Your task to perform on an android device: visit the assistant section in the google photos Image 0: 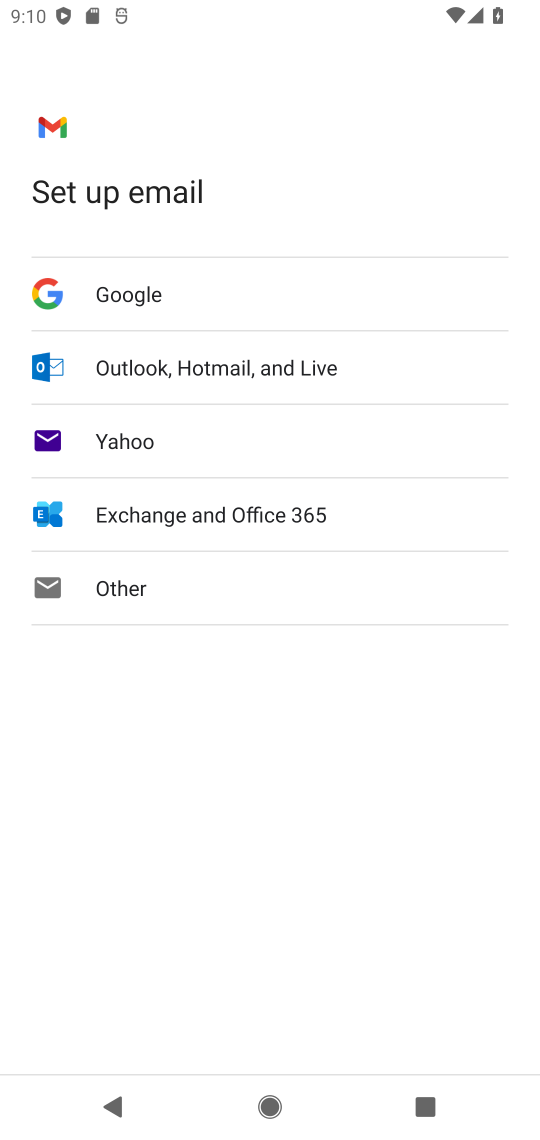
Step 0: press home button
Your task to perform on an android device: visit the assistant section in the google photos Image 1: 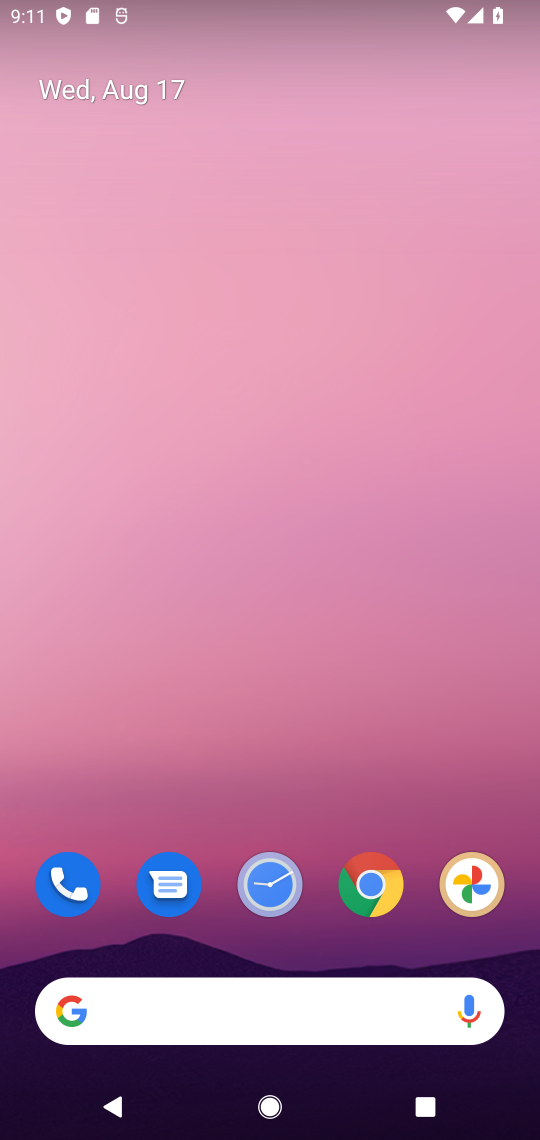
Step 1: click (478, 890)
Your task to perform on an android device: visit the assistant section in the google photos Image 2: 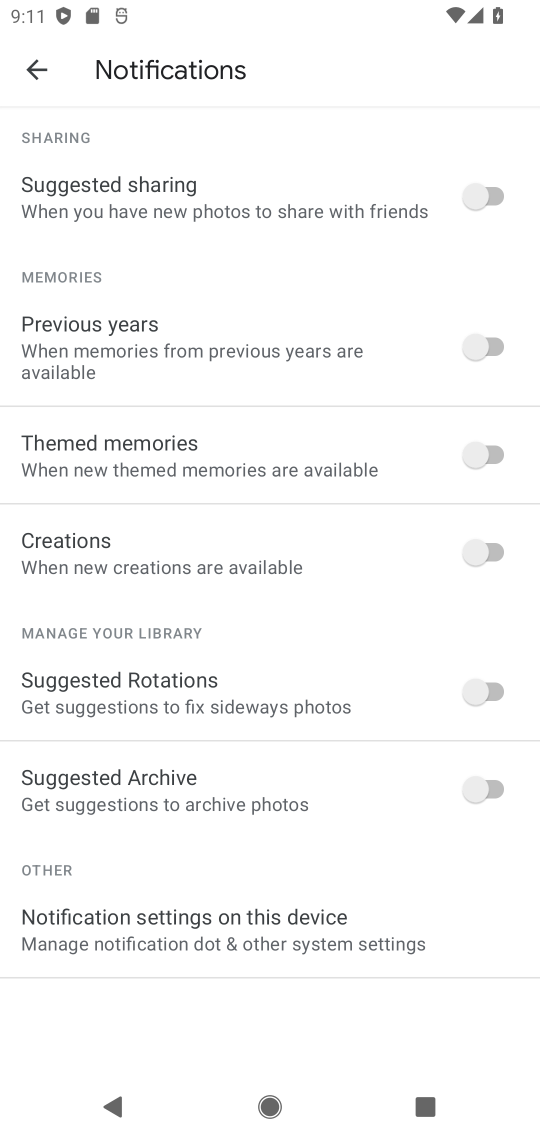
Step 2: click (31, 71)
Your task to perform on an android device: visit the assistant section in the google photos Image 3: 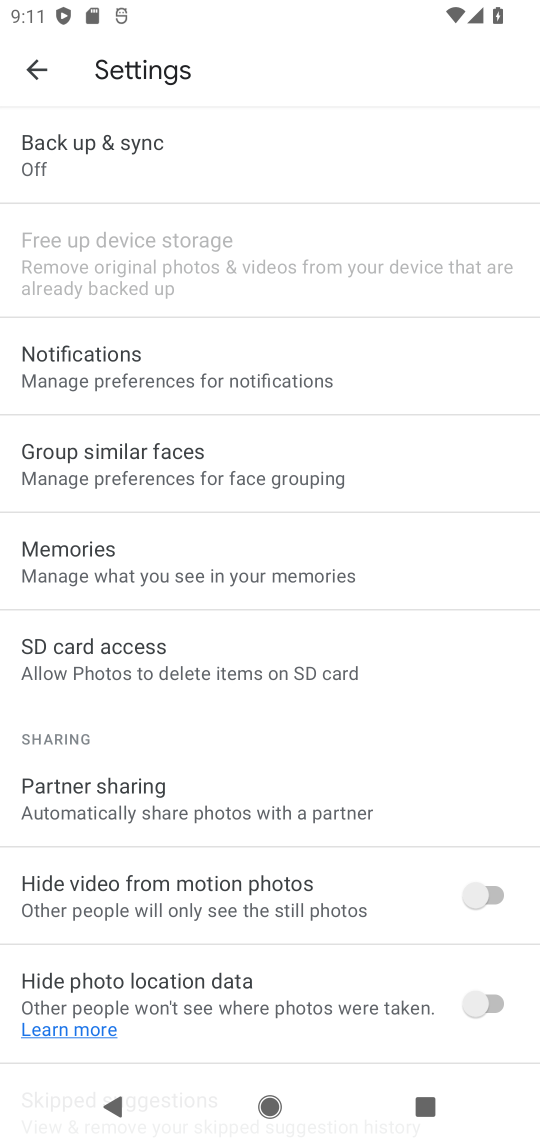
Step 3: click (38, 71)
Your task to perform on an android device: visit the assistant section in the google photos Image 4: 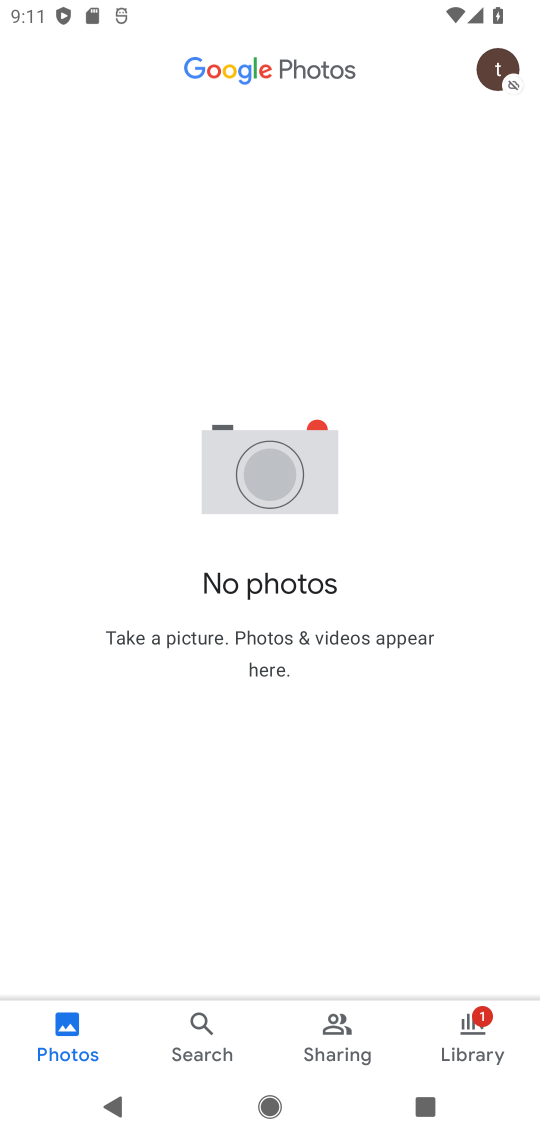
Step 4: click (357, 1051)
Your task to perform on an android device: visit the assistant section in the google photos Image 5: 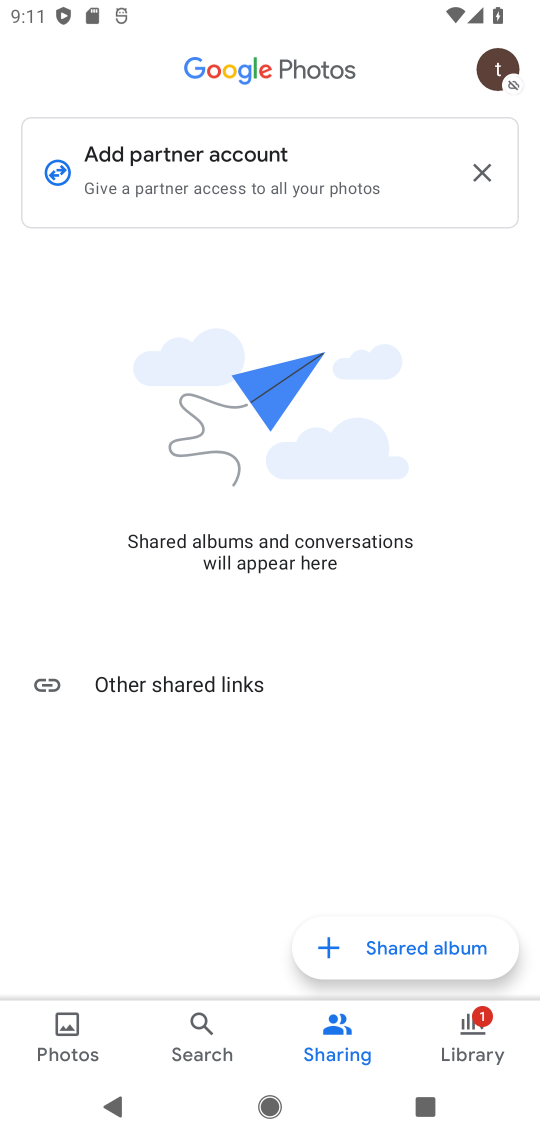
Step 5: task complete